Your task to perform on an android device: turn on location history Image 0: 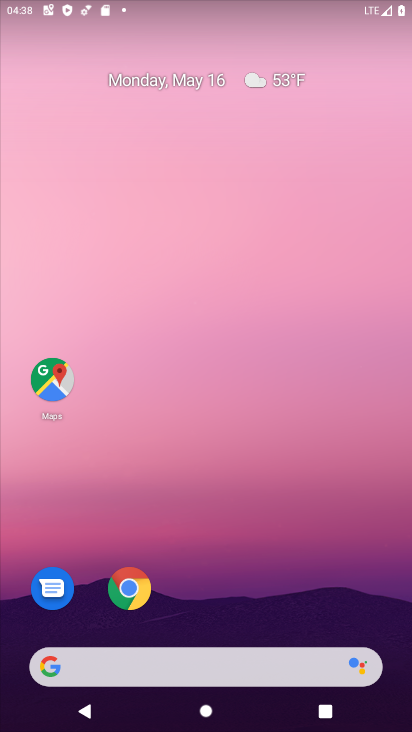
Step 0: drag from (206, 500) to (157, 23)
Your task to perform on an android device: turn on location history Image 1: 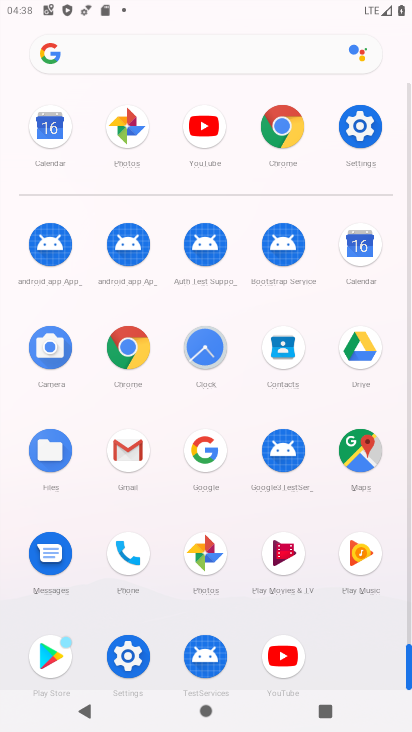
Step 1: drag from (0, 497) to (1, 241)
Your task to perform on an android device: turn on location history Image 2: 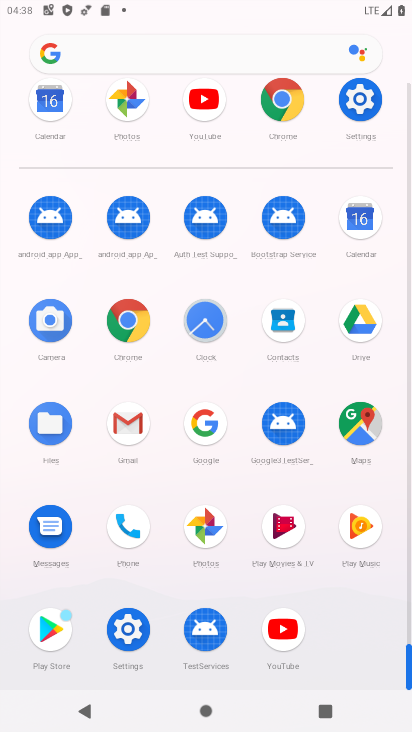
Step 2: click (129, 625)
Your task to perform on an android device: turn on location history Image 3: 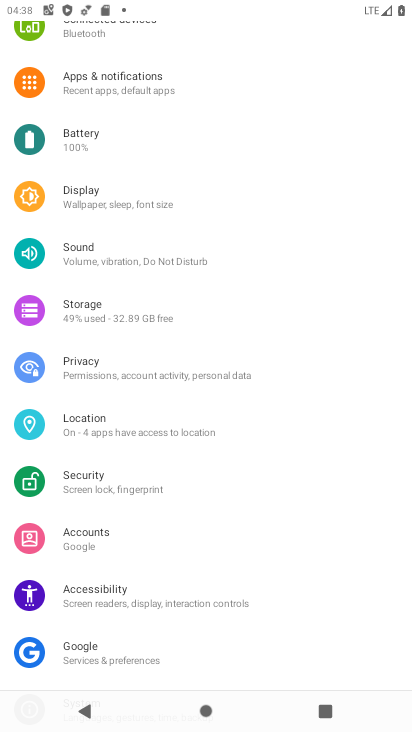
Step 3: click (93, 435)
Your task to perform on an android device: turn on location history Image 4: 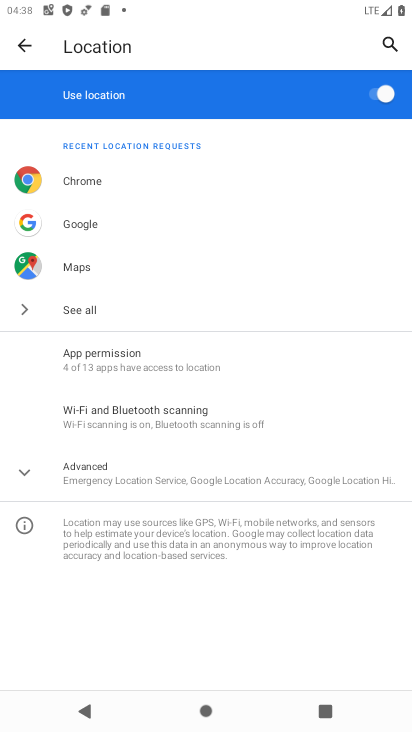
Step 4: click (87, 464)
Your task to perform on an android device: turn on location history Image 5: 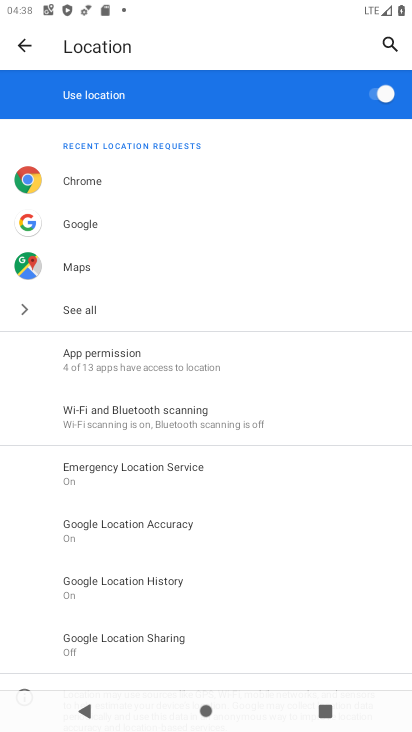
Step 5: click (120, 572)
Your task to perform on an android device: turn on location history Image 6: 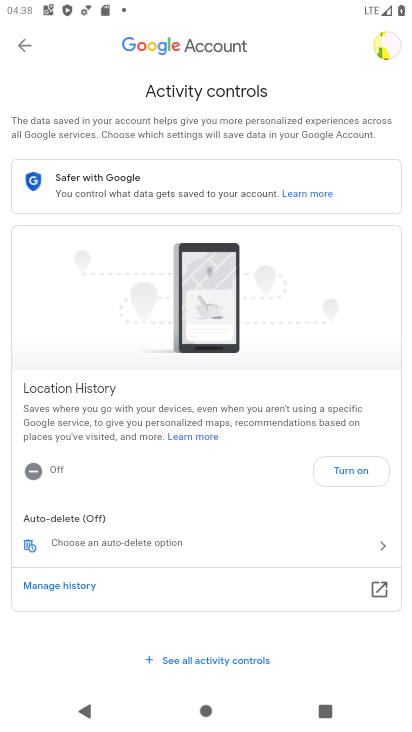
Step 6: drag from (225, 517) to (276, 109)
Your task to perform on an android device: turn on location history Image 7: 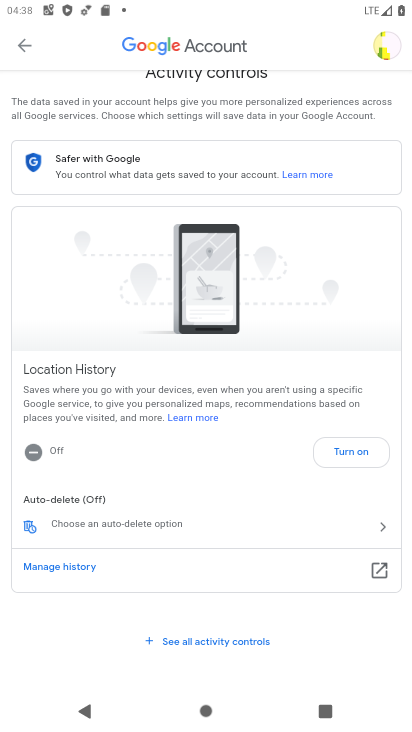
Step 7: click (354, 449)
Your task to perform on an android device: turn on location history Image 8: 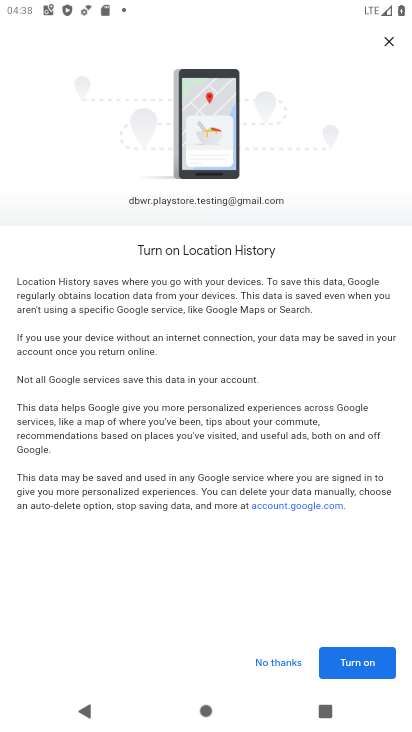
Step 8: click (342, 669)
Your task to perform on an android device: turn on location history Image 9: 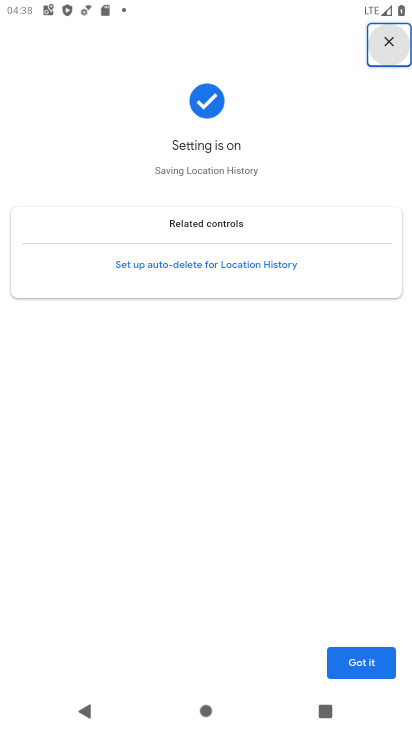
Step 9: task complete